Your task to perform on an android device: check battery use Image 0: 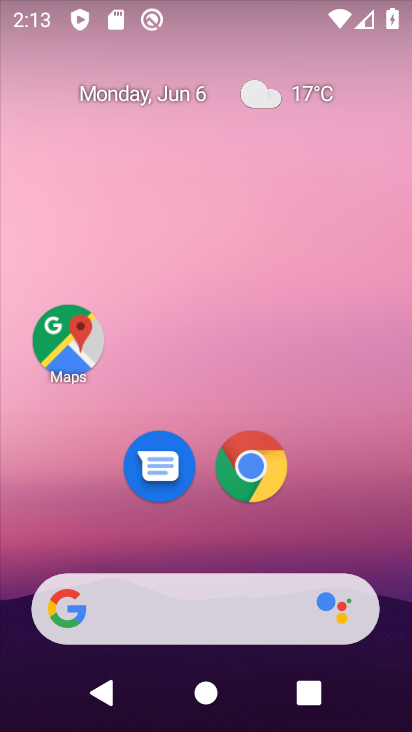
Step 0: drag from (361, 561) to (286, 77)
Your task to perform on an android device: check battery use Image 1: 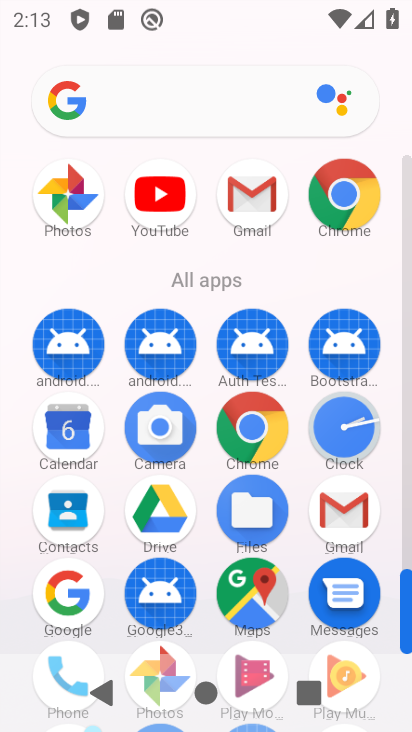
Step 1: drag from (398, 542) to (399, 418)
Your task to perform on an android device: check battery use Image 2: 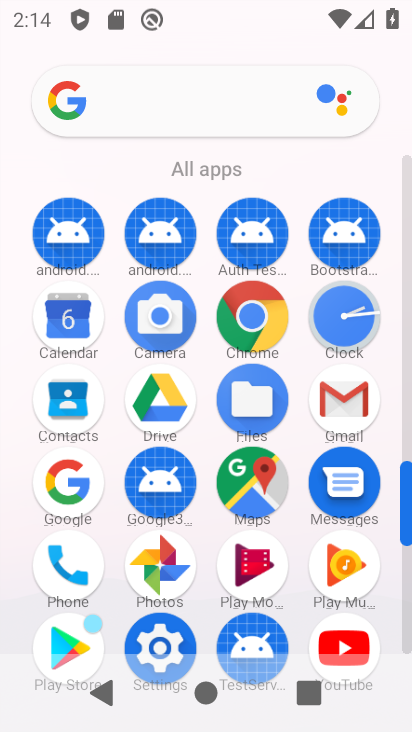
Step 2: click (163, 638)
Your task to perform on an android device: check battery use Image 3: 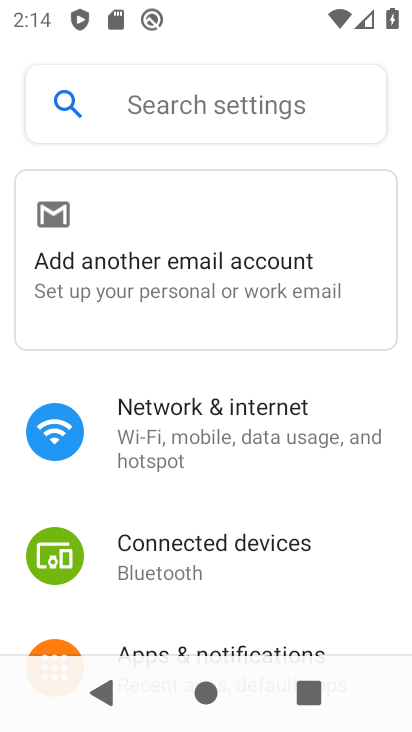
Step 3: drag from (301, 598) to (252, 138)
Your task to perform on an android device: check battery use Image 4: 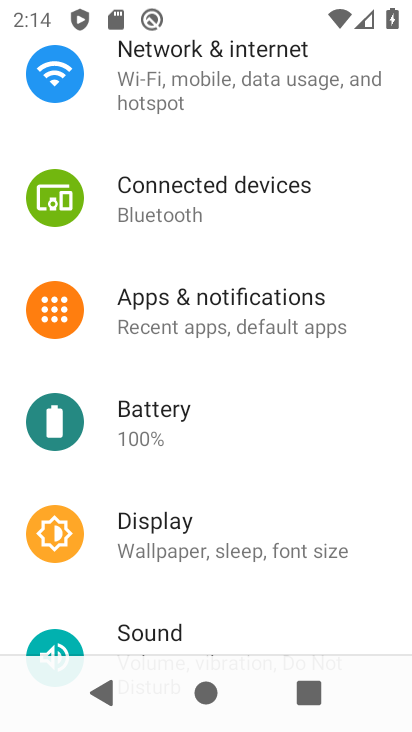
Step 4: click (211, 431)
Your task to perform on an android device: check battery use Image 5: 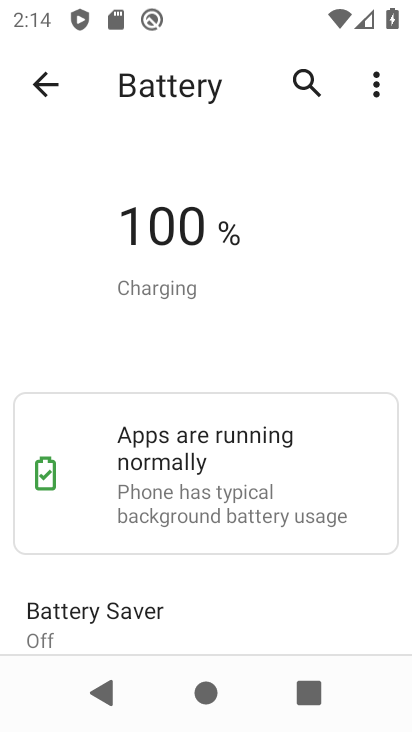
Step 5: click (362, 100)
Your task to perform on an android device: check battery use Image 6: 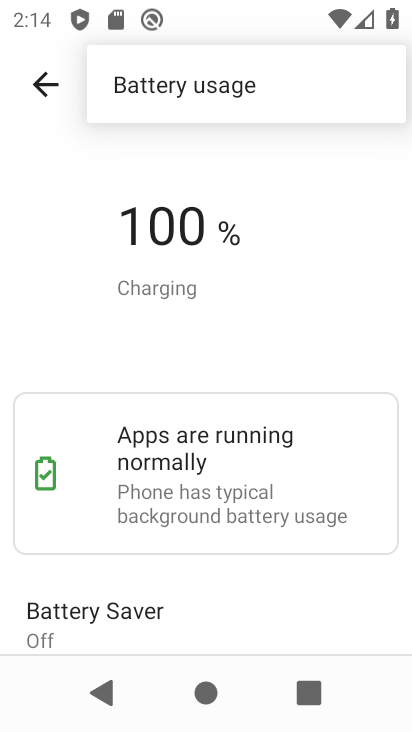
Step 6: click (267, 102)
Your task to perform on an android device: check battery use Image 7: 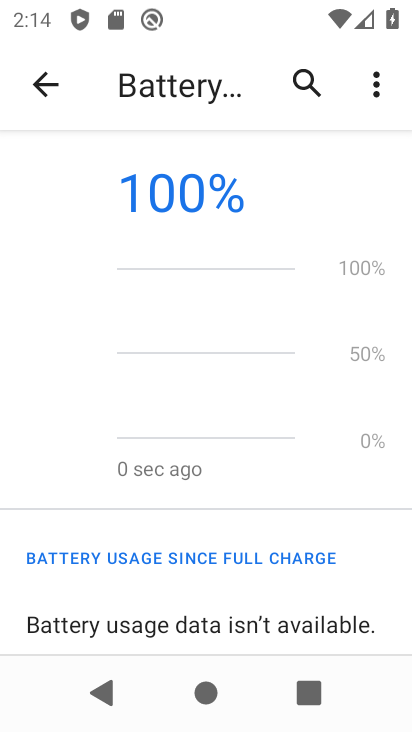
Step 7: task complete